Your task to perform on an android device: Search for Mexican restaurants on Maps Image 0: 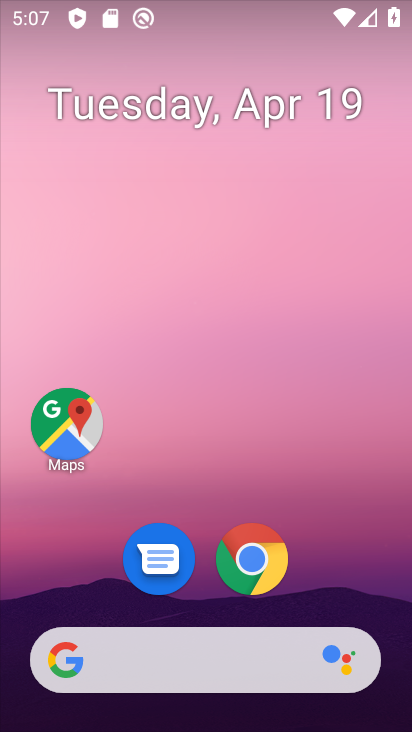
Step 0: drag from (323, 594) to (323, 146)
Your task to perform on an android device: Search for Mexican restaurants on Maps Image 1: 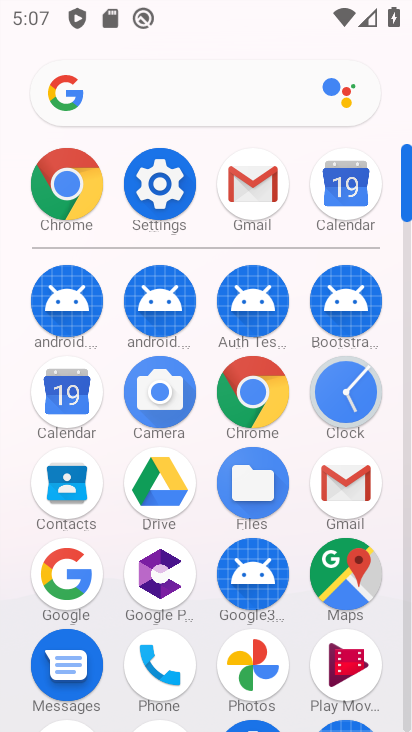
Step 1: click (338, 558)
Your task to perform on an android device: Search for Mexican restaurants on Maps Image 2: 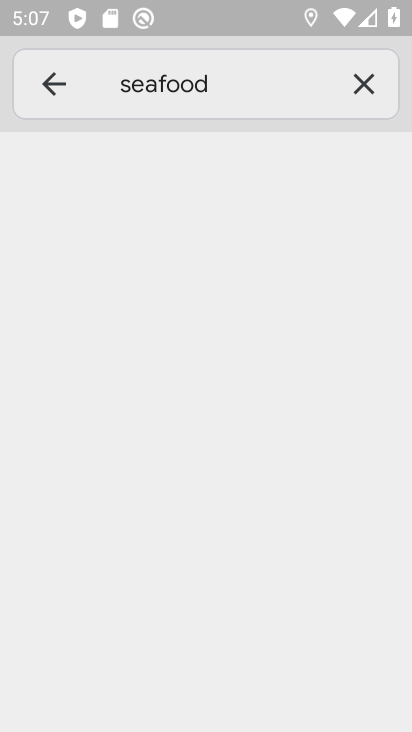
Step 2: click (355, 93)
Your task to perform on an android device: Search for Mexican restaurants on Maps Image 3: 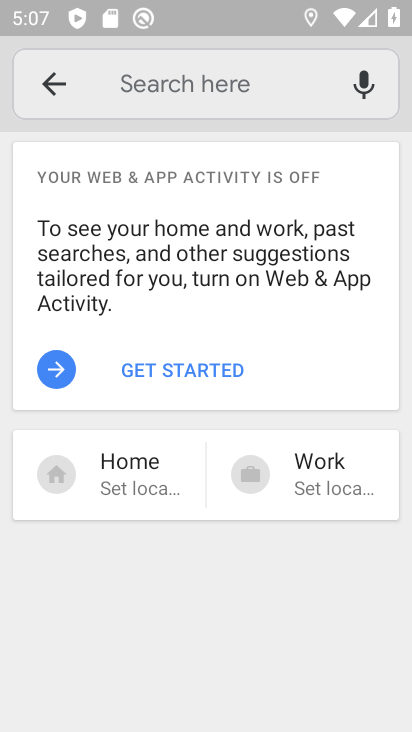
Step 3: click (215, 89)
Your task to perform on an android device: Search for Mexican restaurants on Maps Image 4: 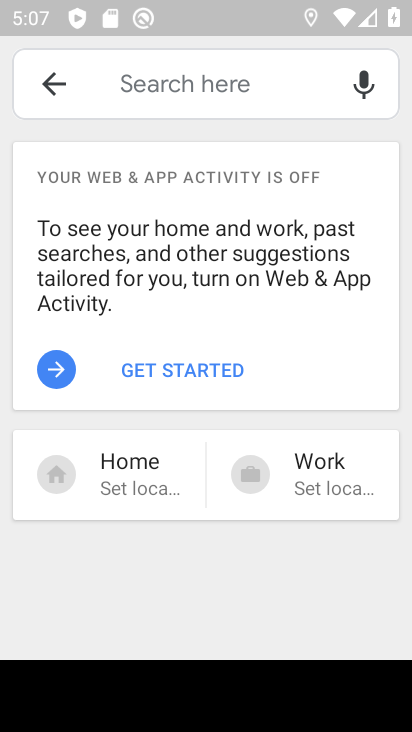
Step 4: type "mexiaca"
Your task to perform on an android device: Search for Mexican restaurants on Maps Image 5: 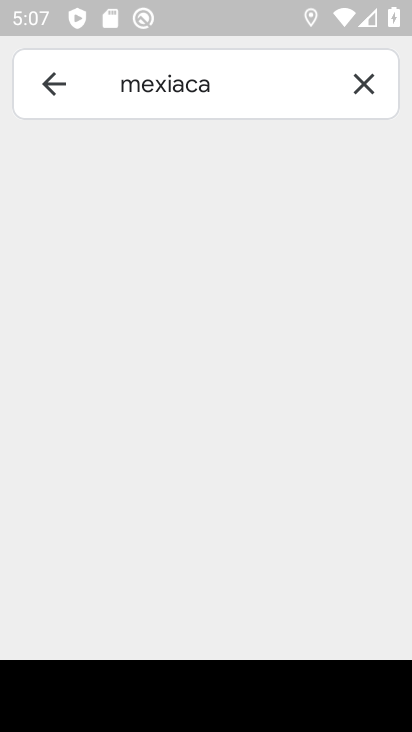
Step 5: click (410, 321)
Your task to perform on an android device: Search for Mexican restaurants on Maps Image 6: 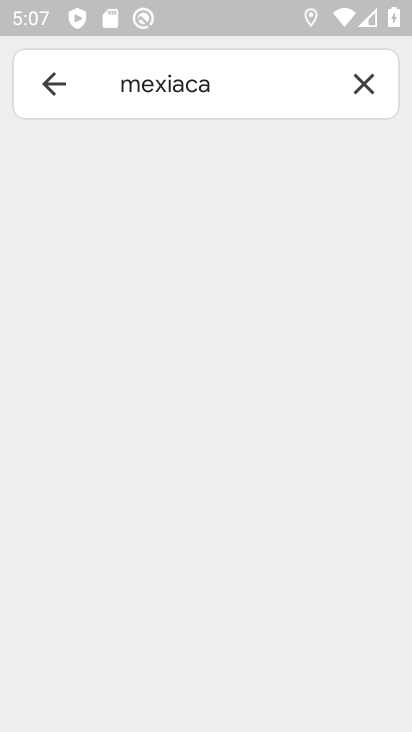
Step 6: task complete